Your task to perform on an android device: turn off location Image 0: 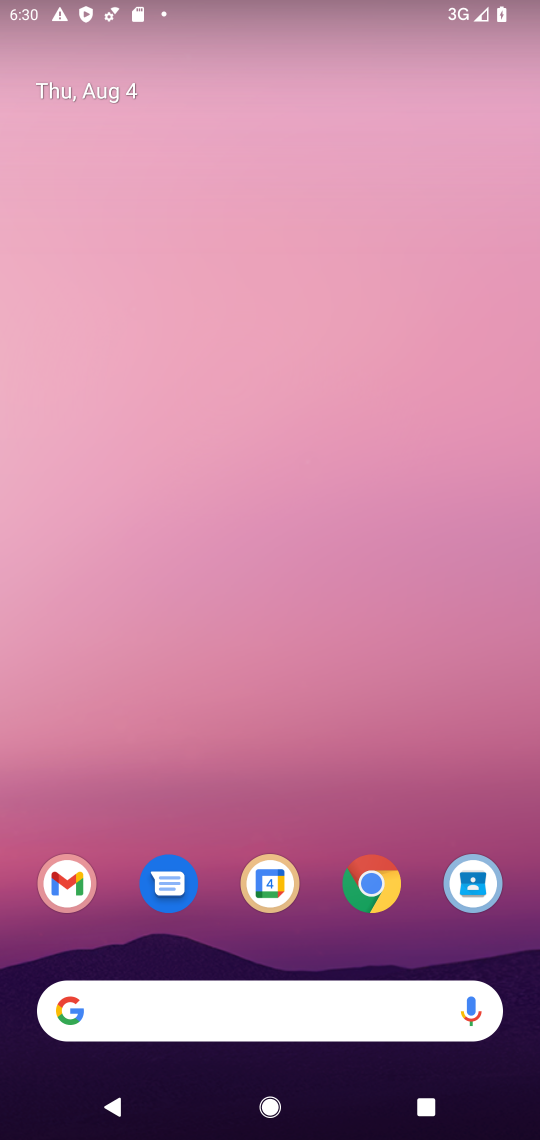
Step 0: drag from (421, 843) to (367, 88)
Your task to perform on an android device: turn off location Image 1: 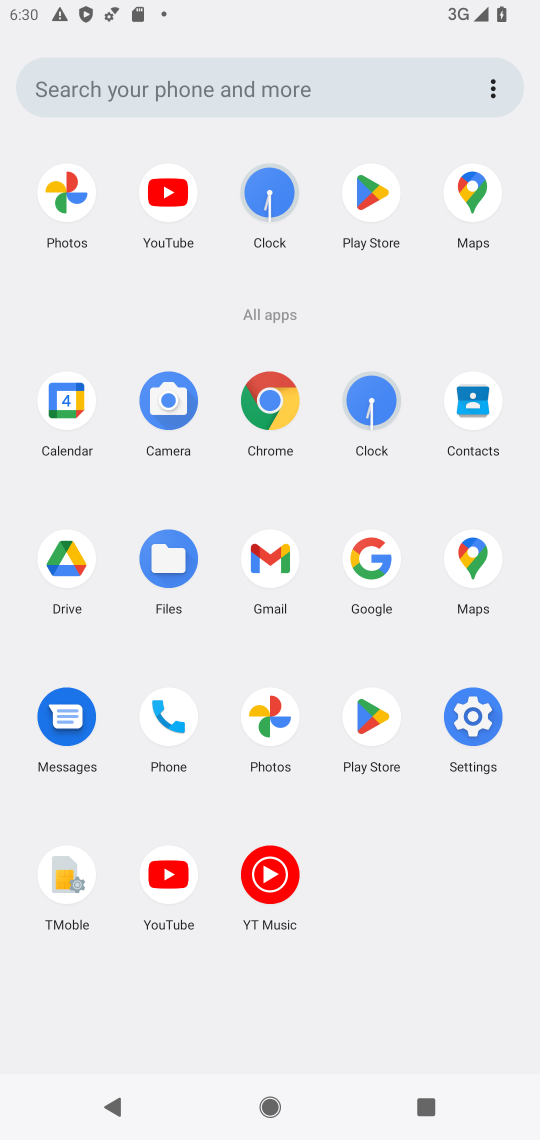
Step 1: click (469, 719)
Your task to perform on an android device: turn off location Image 2: 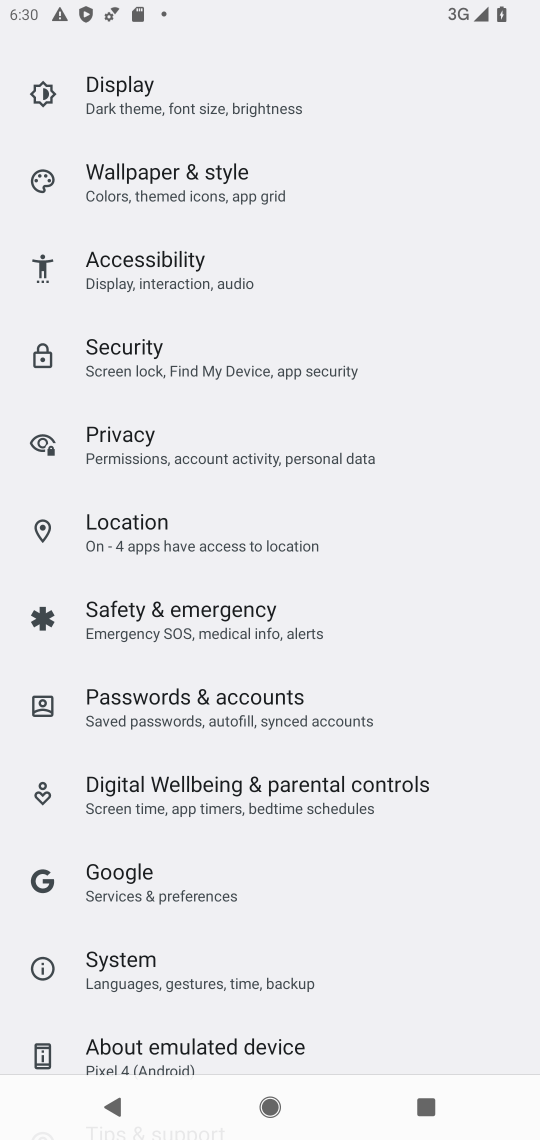
Step 2: click (329, 542)
Your task to perform on an android device: turn off location Image 3: 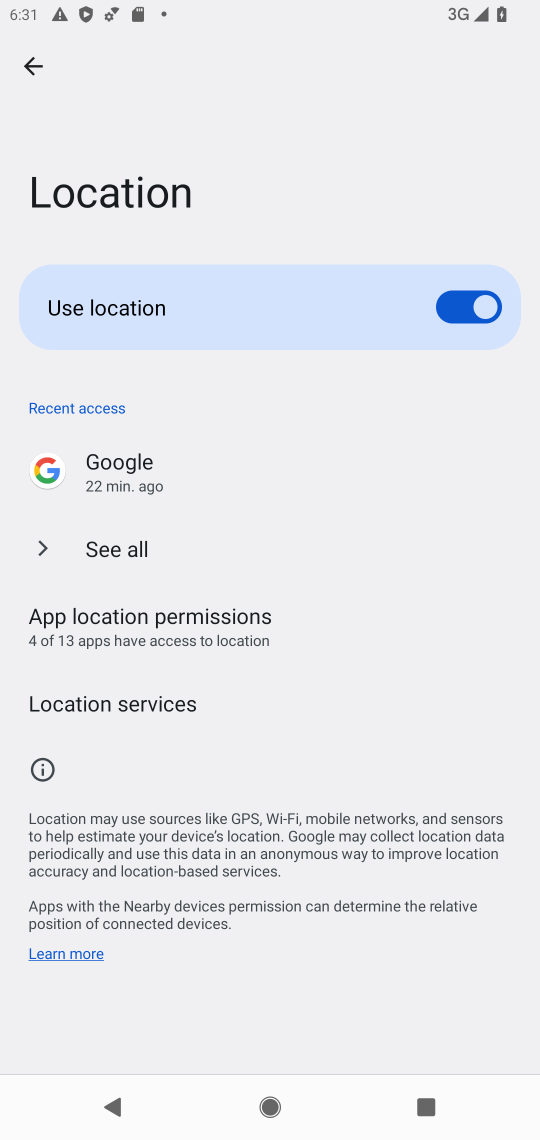
Step 3: click (464, 302)
Your task to perform on an android device: turn off location Image 4: 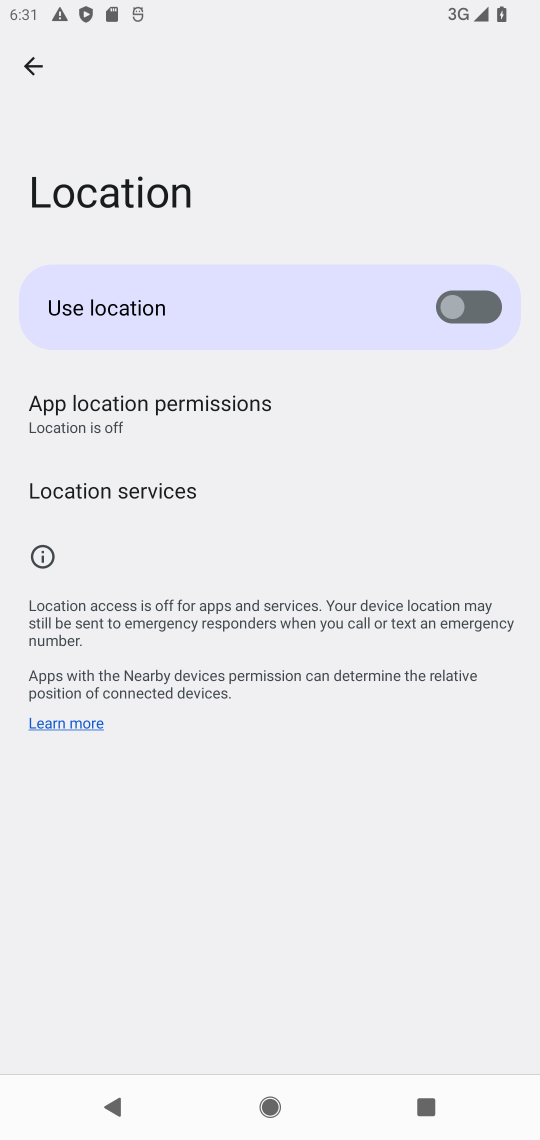
Step 4: task complete